Your task to perform on an android device: find snoozed emails in the gmail app Image 0: 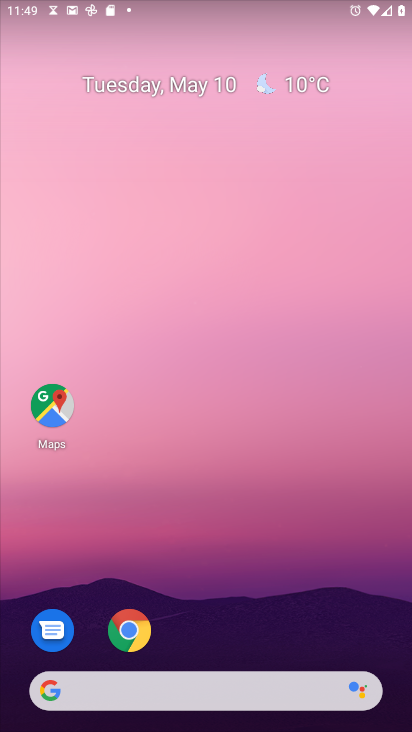
Step 0: drag from (308, 500) to (240, 8)
Your task to perform on an android device: find snoozed emails in the gmail app Image 1: 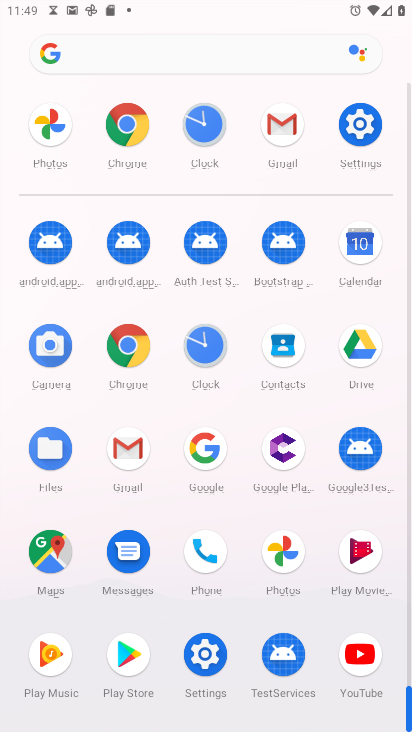
Step 1: click (281, 133)
Your task to perform on an android device: find snoozed emails in the gmail app Image 2: 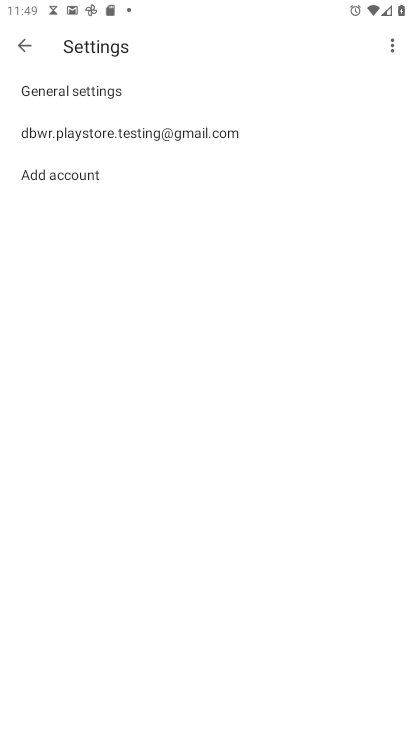
Step 2: click (18, 51)
Your task to perform on an android device: find snoozed emails in the gmail app Image 3: 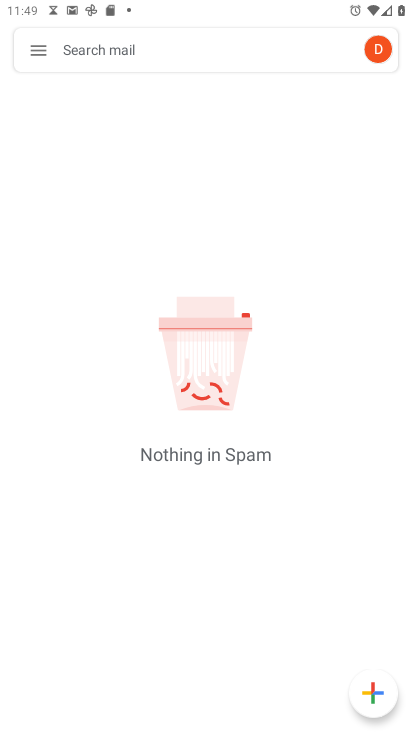
Step 3: click (47, 47)
Your task to perform on an android device: find snoozed emails in the gmail app Image 4: 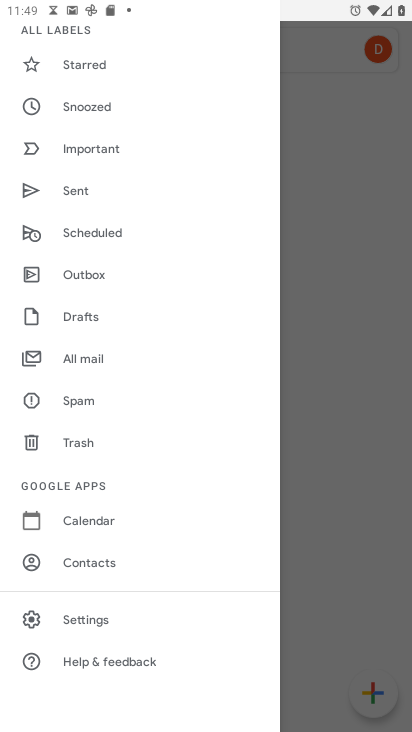
Step 4: click (99, 108)
Your task to perform on an android device: find snoozed emails in the gmail app Image 5: 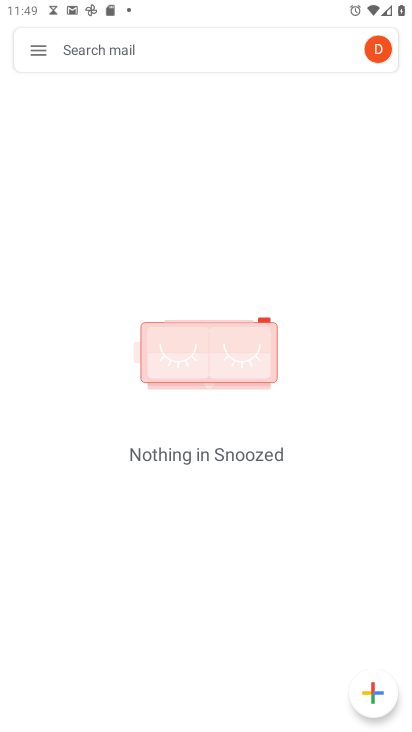
Step 5: task complete